Your task to perform on an android device: Turn on the flashlight Image 0: 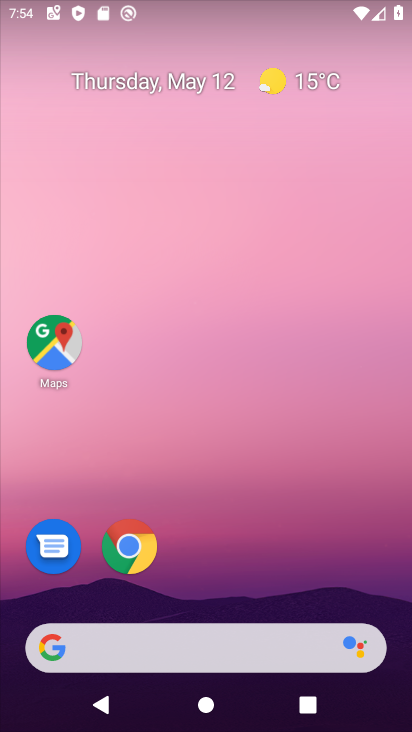
Step 0: drag from (234, 1) to (285, 429)
Your task to perform on an android device: Turn on the flashlight Image 1: 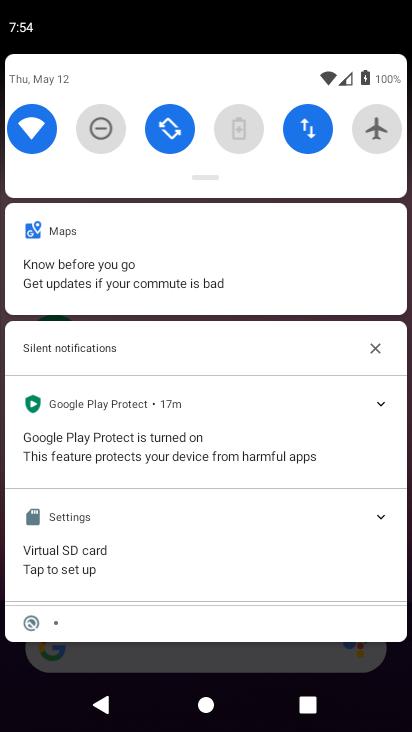
Step 1: task complete